Your task to perform on an android device: turn on showing notifications on the lock screen Image 0: 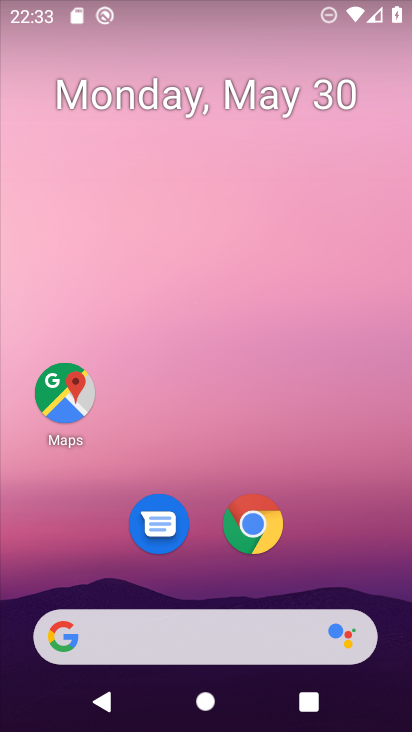
Step 0: drag from (224, 465) to (234, 24)
Your task to perform on an android device: turn on showing notifications on the lock screen Image 1: 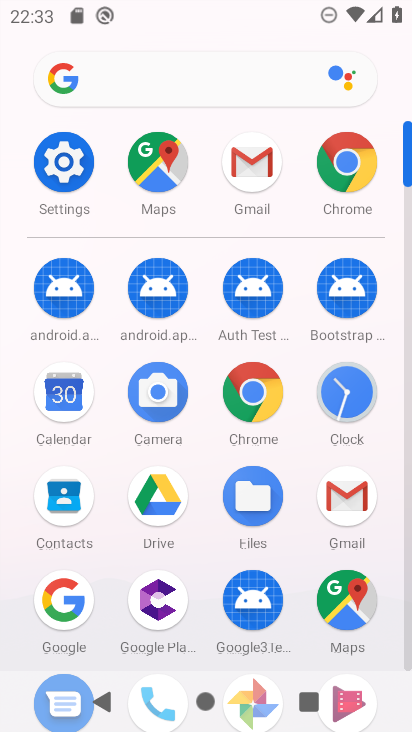
Step 1: click (71, 168)
Your task to perform on an android device: turn on showing notifications on the lock screen Image 2: 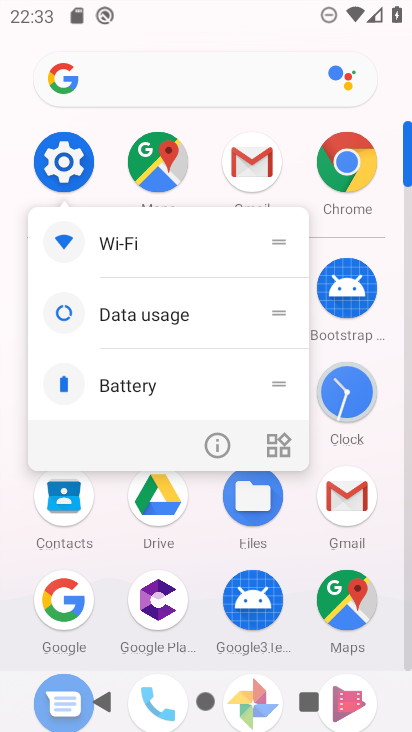
Step 2: click (71, 163)
Your task to perform on an android device: turn on showing notifications on the lock screen Image 3: 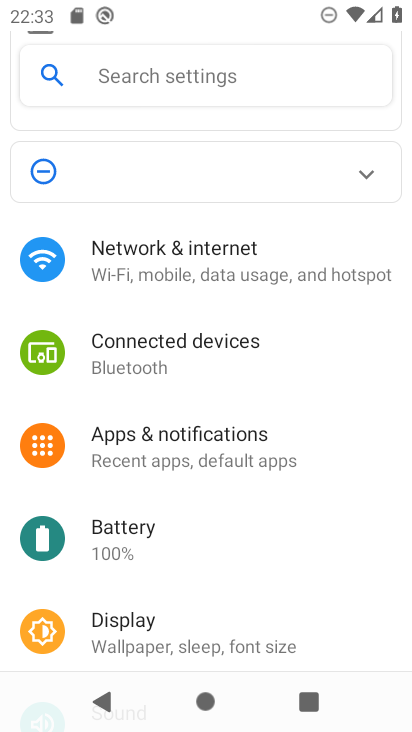
Step 3: click (221, 447)
Your task to perform on an android device: turn on showing notifications on the lock screen Image 4: 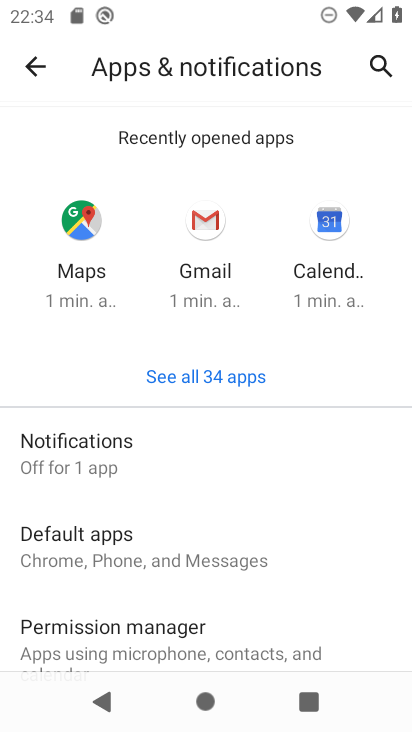
Step 4: click (219, 460)
Your task to perform on an android device: turn on showing notifications on the lock screen Image 5: 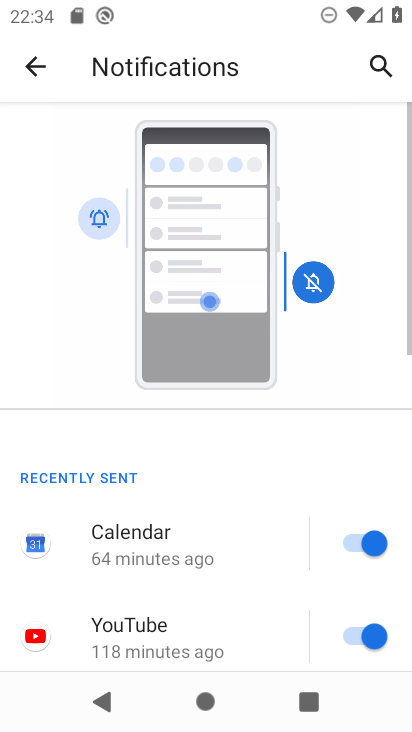
Step 5: task complete